Your task to perform on an android device: turn on notifications settings in the gmail app Image 0: 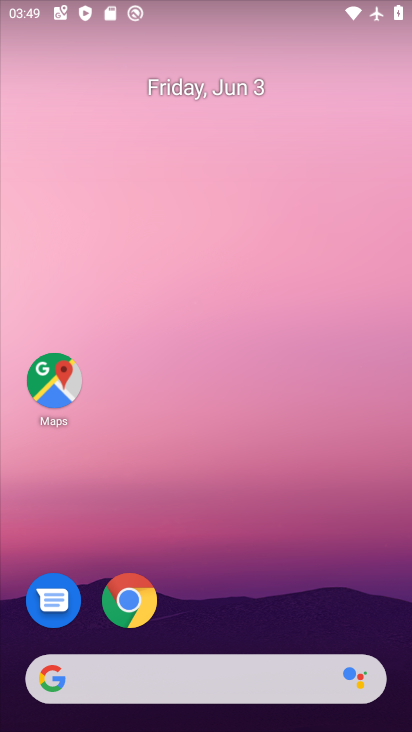
Step 0: drag from (235, 598) to (291, 24)
Your task to perform on an android device: turn on notifications settings in the gmail app Image 1: 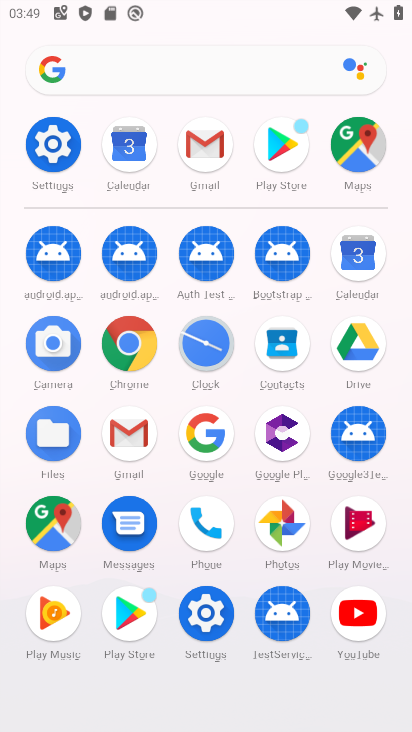
Step 1: click (142, 444)
Your task to perform on an android device: turn on notifications settings in the gmail app Image 2: 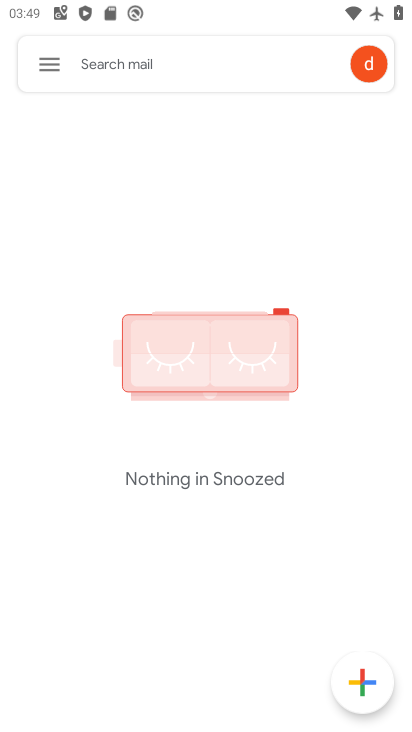
Step 2: click (47, 70)
Your task to perform on an android device: turn on notifications settings in the gmail app Image 3: 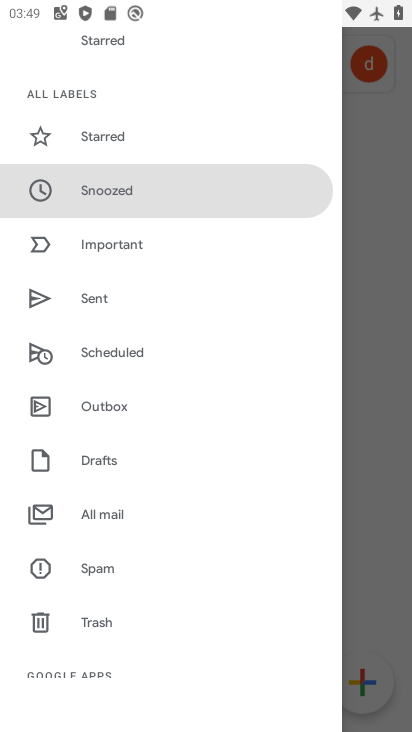
Step 3: drag from (121, 588) to (204, 201)
Your task to perform on an android device: turn on notifications settings in the gmail app Image 4: 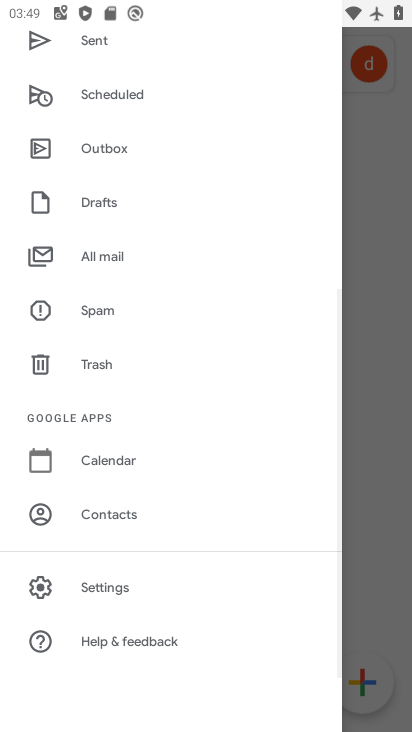
Step 4: click (110, 591)
Your task to perform on an android device: turn on notifications settings in the gmail app Image 5: 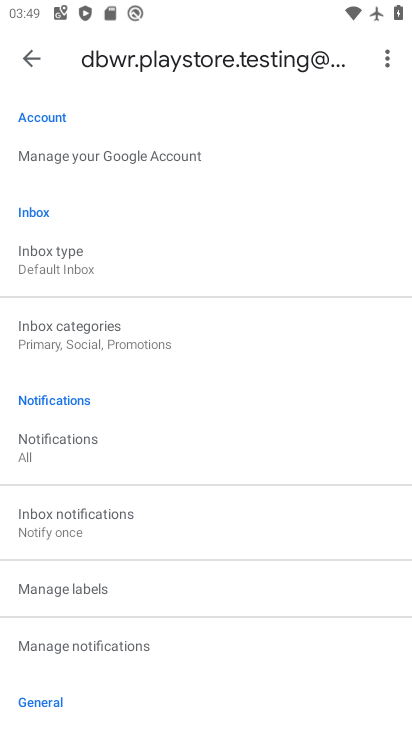
Step 5: click (37, 57)
Your task to perform on an android device: turn on notifications settings in the gmail app Image 6: 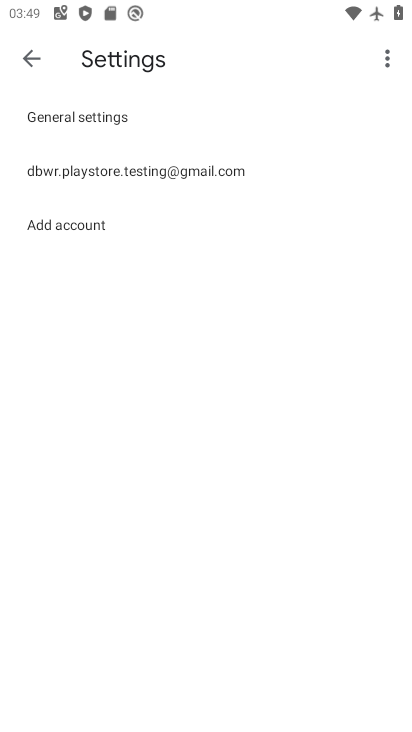
Step 6: click (120, 118)
Your task to perform on an android device: turn on notifications settings in the gmail app Image 7: 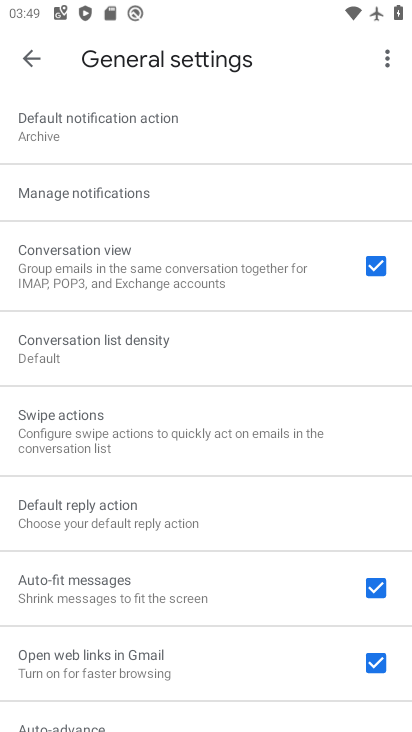
Step 7: click (156, 193)
Your task to perform on an android device: turn on notifications settings in the gmail app Image 8: 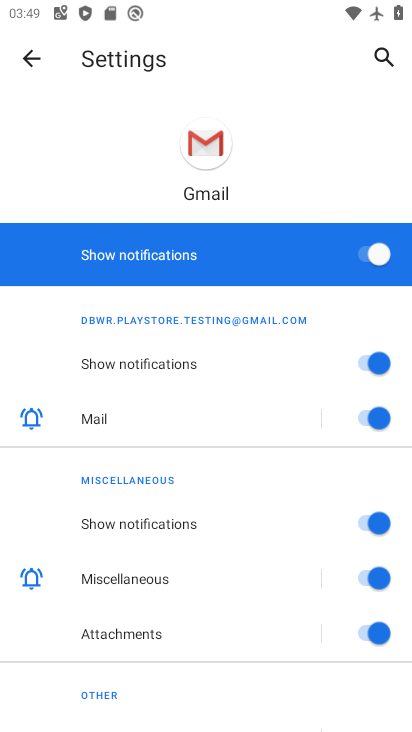
Step 8: task complete